Your task to perform on an android device: find photos in the google photos app Image 0: 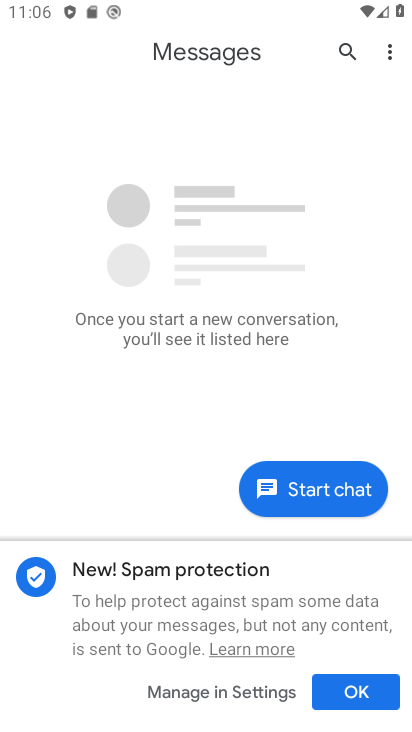
Step 0: press back button
Your task to perform on an android device: find photos in the google photos app Image 1: 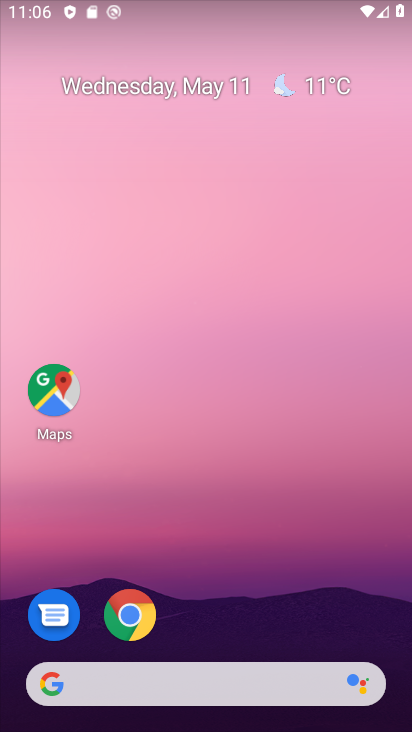
Step 1: drag from (171, 652) to (275, 129)
Your task to perform on an android device: find photos in the google photos app Image 2: 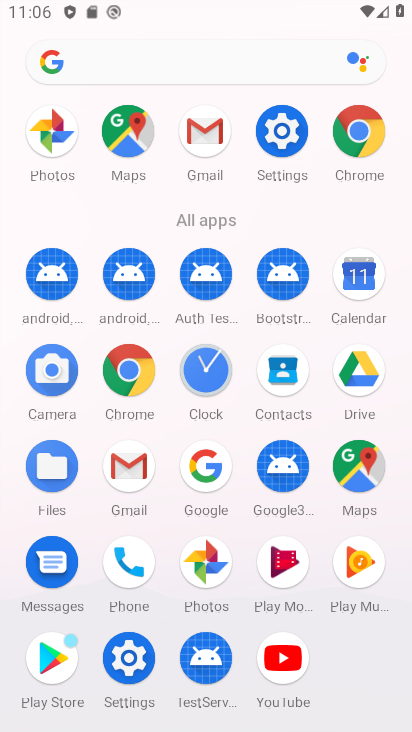
Step 2: click (204, 565)
Your task to perform on an android device: find photos in the google photos app Image 3: 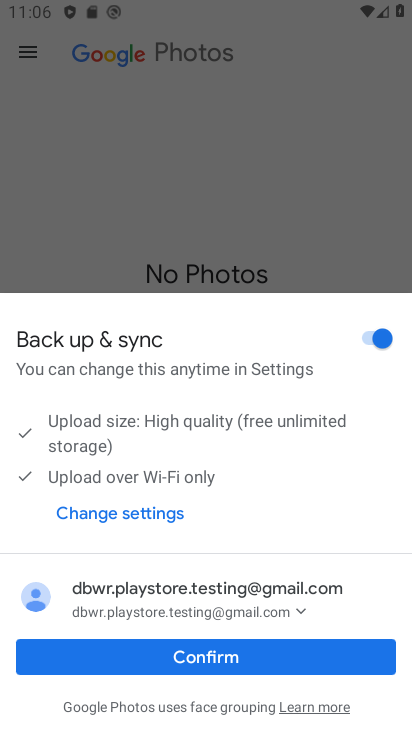
Step 3: click (240, 663)
Your task to perform on an android device: find photos in the google photos app Image 4: 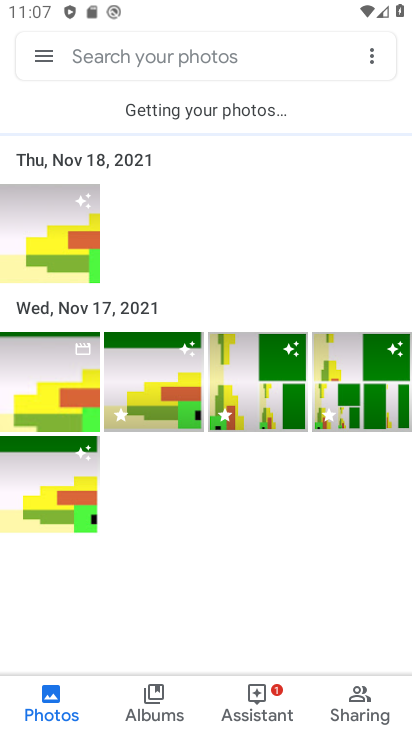
Step 4: task complete